Your task to perform on an android device: Open eBay Image 0: 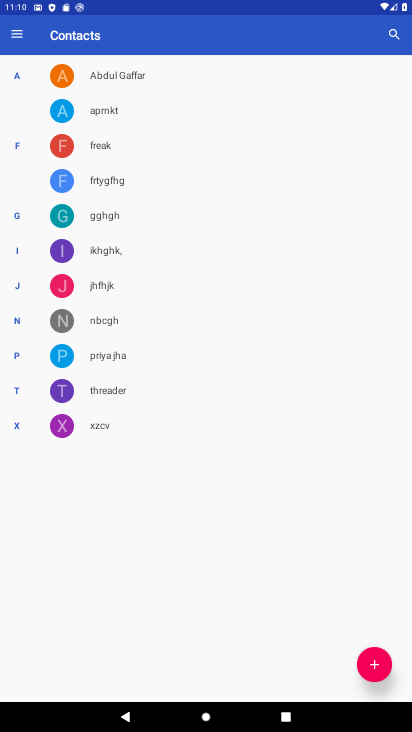
Step 0: press home button
Your task to perform on an android device: Open eBay Image 1: 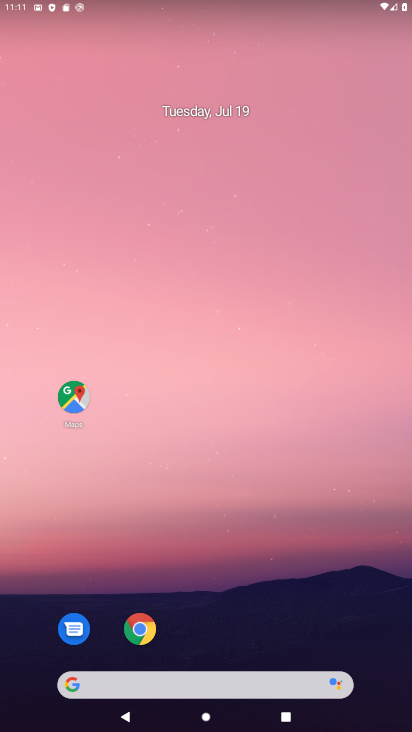
Step 1: drag from (277, 373) to (139, 6)
Your task to perform on an android device: Open eBay Image 2: 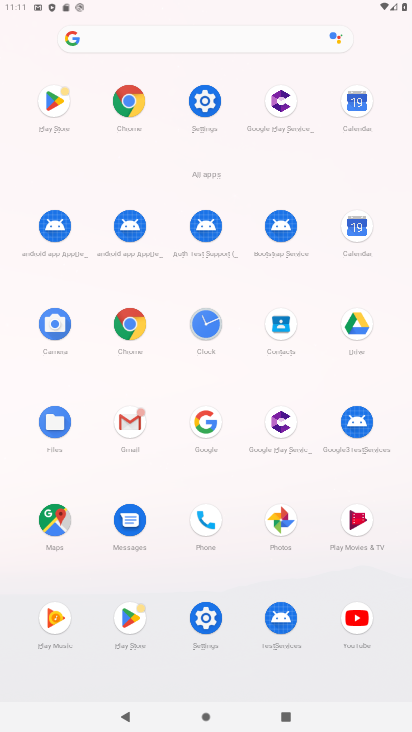
Step 2: click (122, 92)
Your task to perform on an android device: Open eBay Image 3: 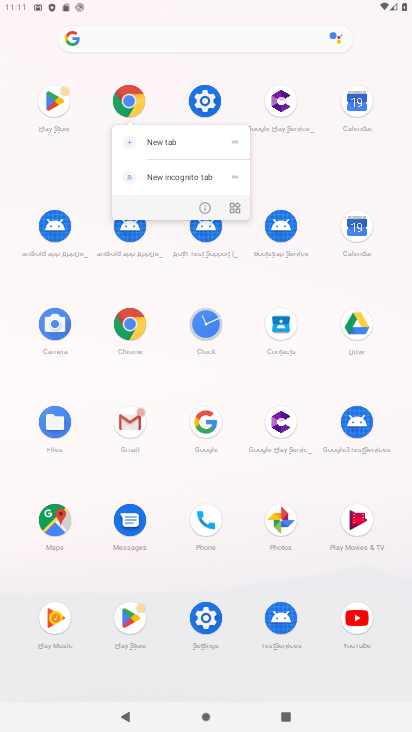
Step 3: click (109, 331)
Your task to perform on an android device: Open eBay Image 4: 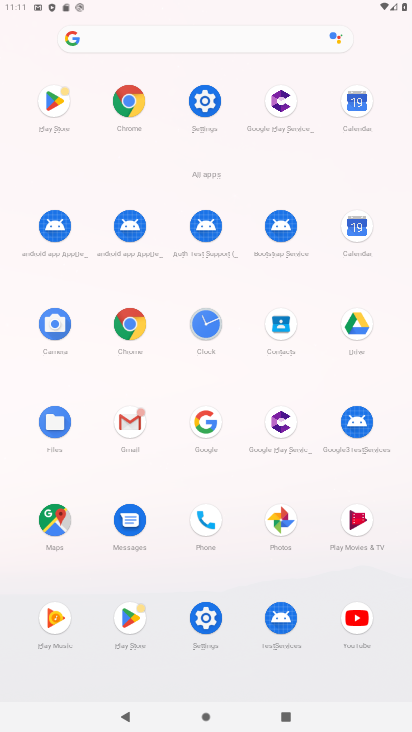
Step 4: click (127, 96)
Your task to perform on an android device: Open eBay Image 5: 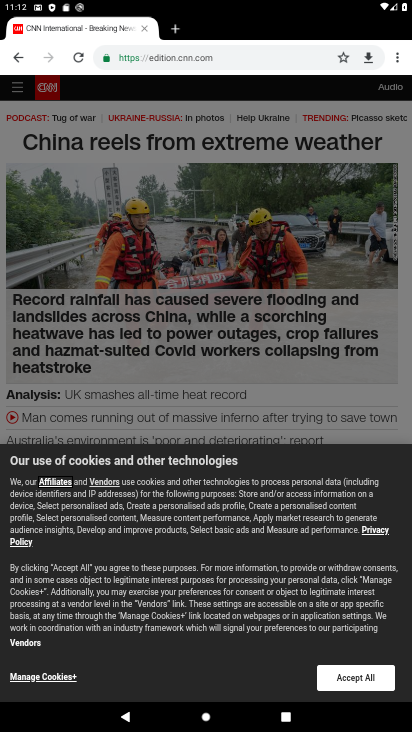
Step 5: click (14, 57)
Your task to perform on an android device: Open eBay Image 6: 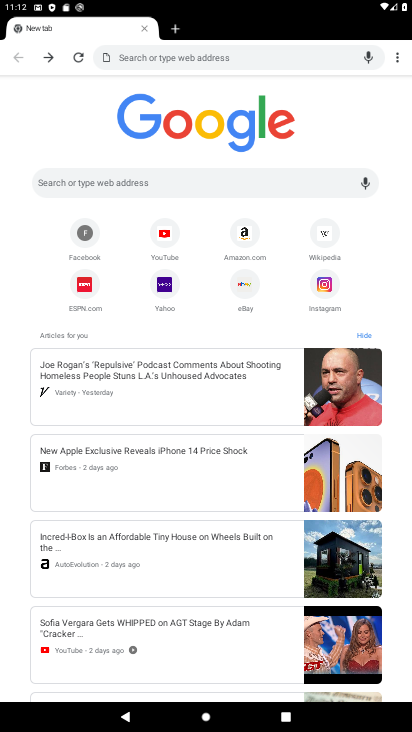
Step 6: click (240, 298)
Your task to perform on an android device: Open eBay Image 7: 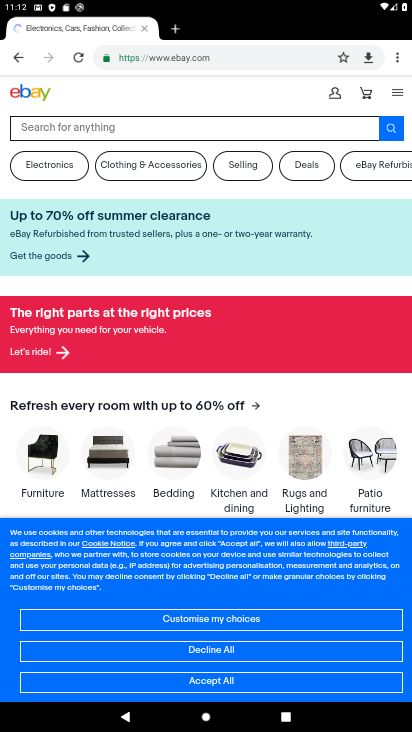
Step 7: task complete